Your task to perform on an android device: turn on translation in the chrome app Image 0: 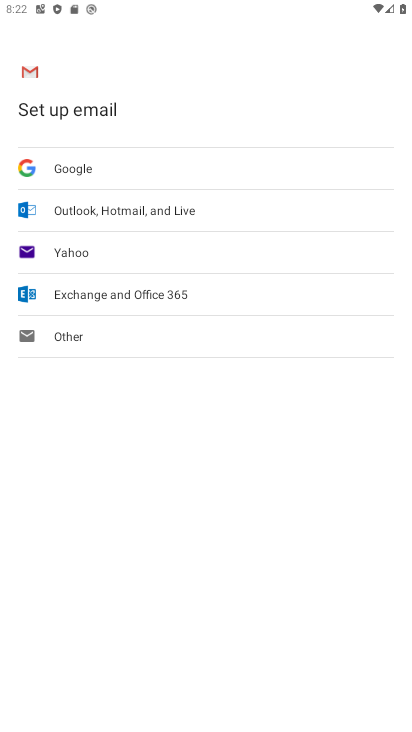
Step 0: press home button
Your task to perform on an android device: turn on translation in the chrome app Image 1: 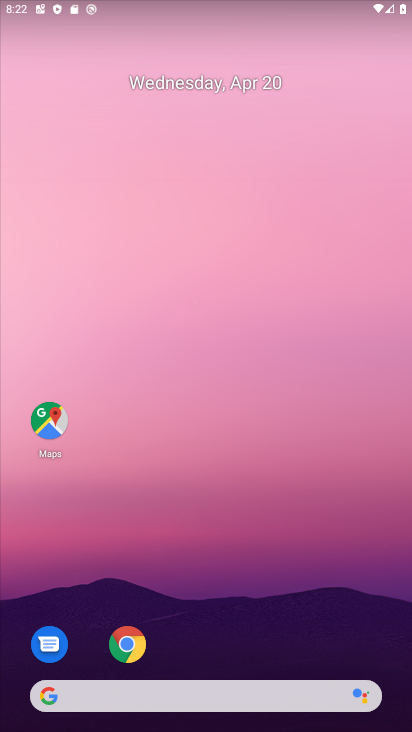
Step 1: drag from (339, 631) to (234, 69)
Your task to perform on an android device: turn on translation in the chrome app Image 2: 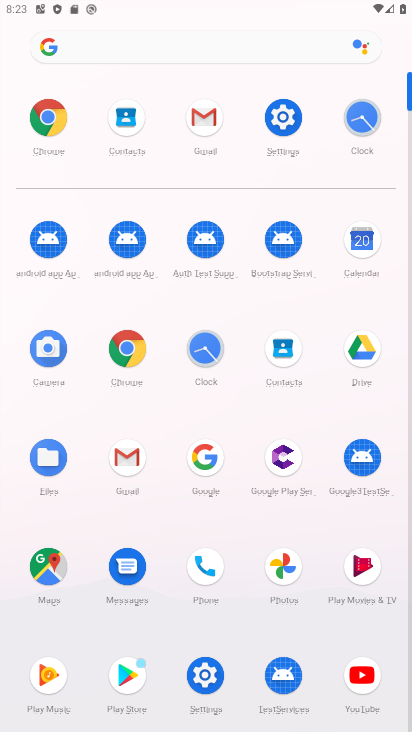
Step 2: click (130, 352)
Your task to perform on an android device: turn on translation in the chrome app Image 3: 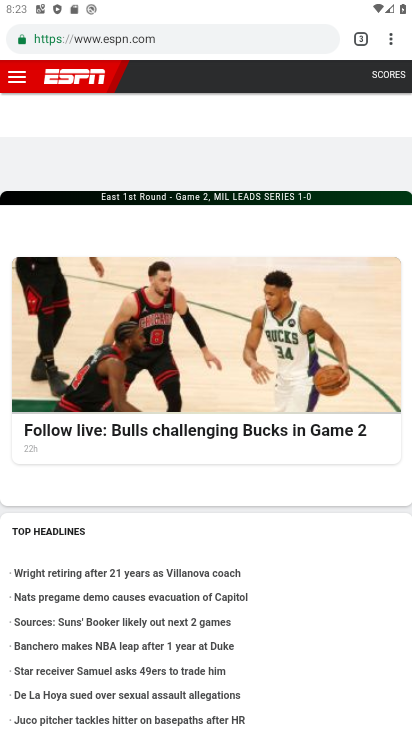
Step 3: click (389, 37)
Your task to perform on an android device: turn on translation in the chrome app Image 4: 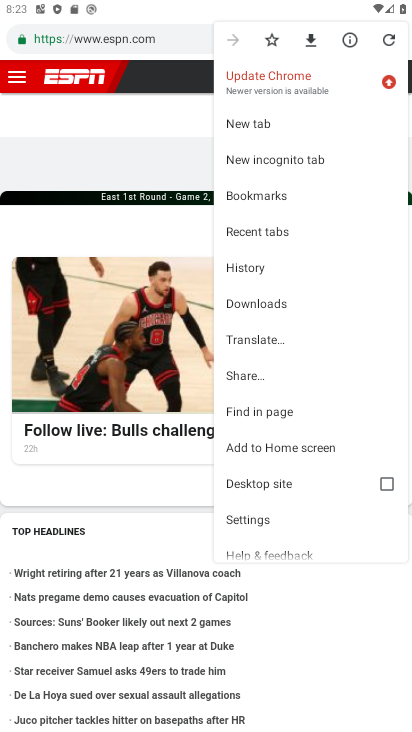
Step 4: click (260, 517)
Your task to perform on an android device: turn on translation in the chrome app Image 5: 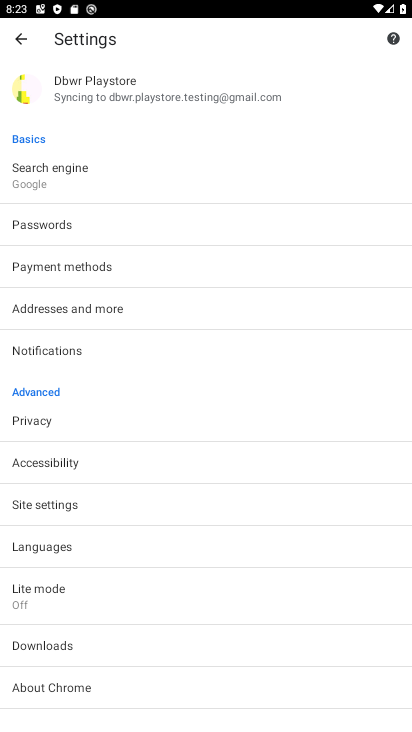
Step 5: click (104, 543)
Your task to perform on an android device: turn on translation in the chrome app Image 6: 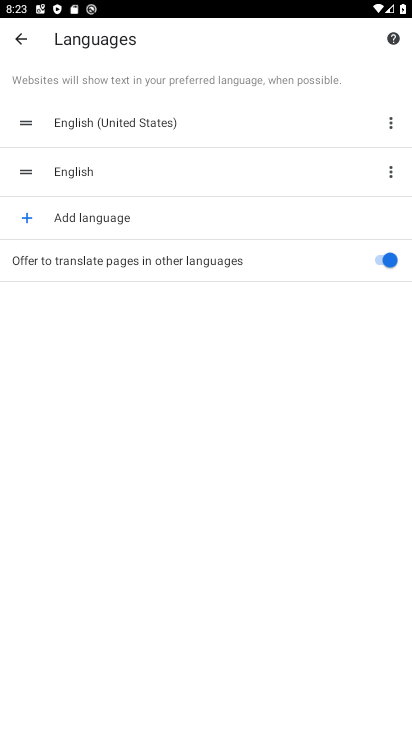
Step 6: task complete